Your task to perform on an android device: install app "WhatsApp Messenger" Image 0: 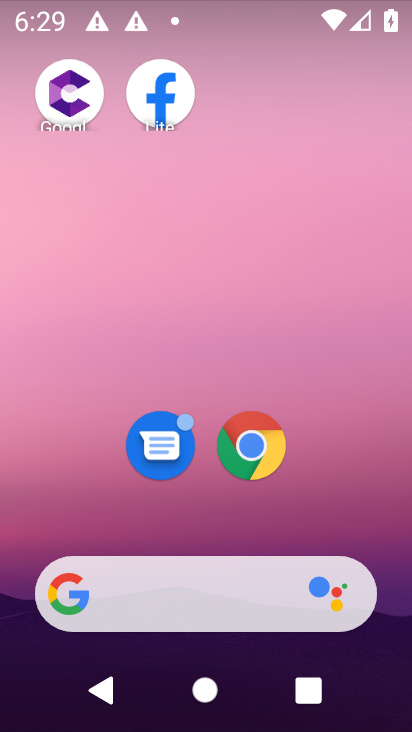
Step 0: drag from (371, 552) to (15, 227)
Your task to perform on an android device: install app "WhatsApp Messenger" Image 1: 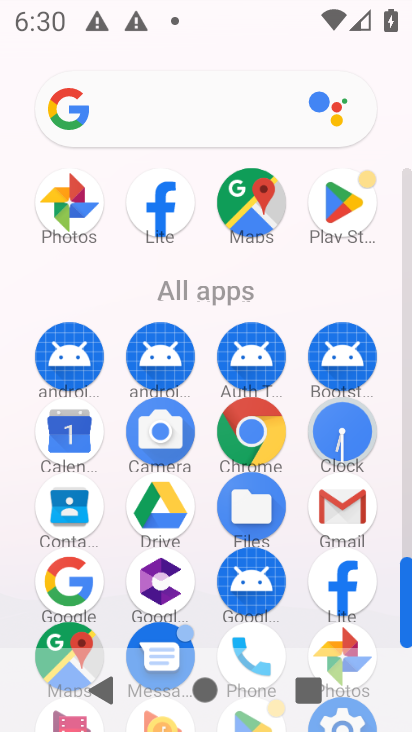
Step 1: click (347, 182)
Your task to perform on an android device: install app "WhatsApp Messenger" Image 2: 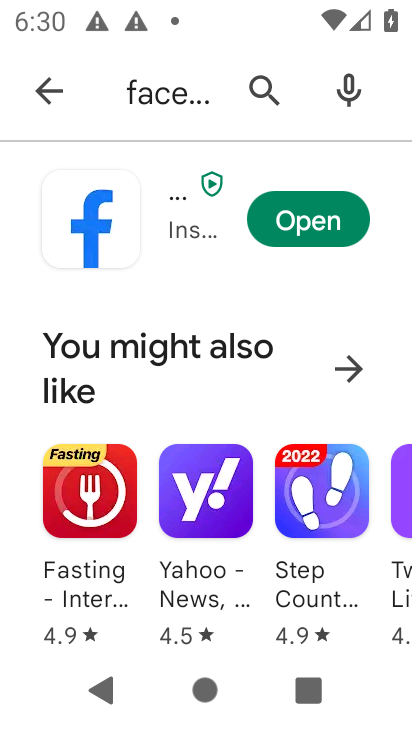
Step 2: press back button
Your task to perform on an android device: install app "WhatsApp Messenger" Image 3: 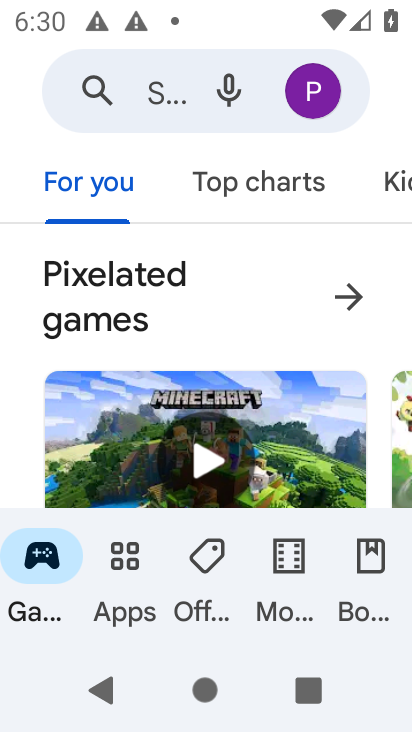
Step 3: click (152, 92)
Your task to perform on an android device: install app "WhatsApp Messenger" Image 4: 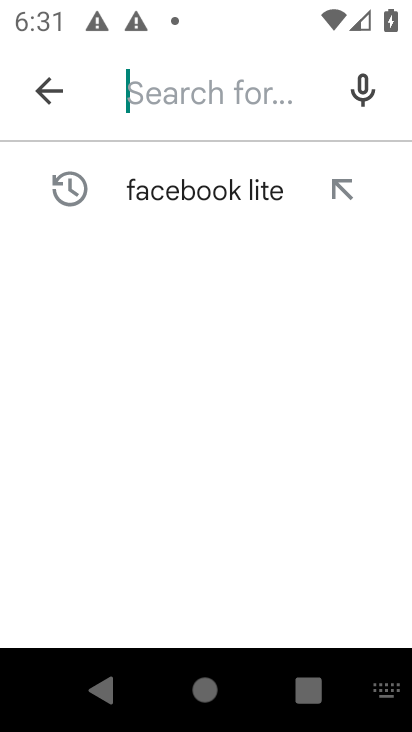
Step 4: type "WhatsApp Messenger"
Your task to perform on an android device: install app "WhatsApp Messenger" Image 5: 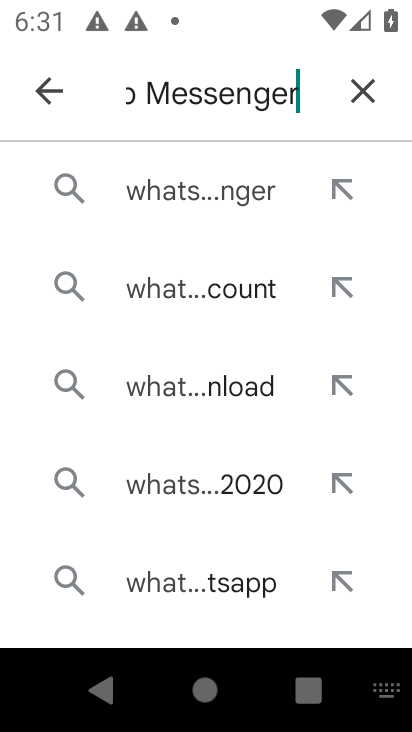
Step 5: click (161, 200)
Your task to perform on an android device: install app "WhatsApp Messenger" Image 6: 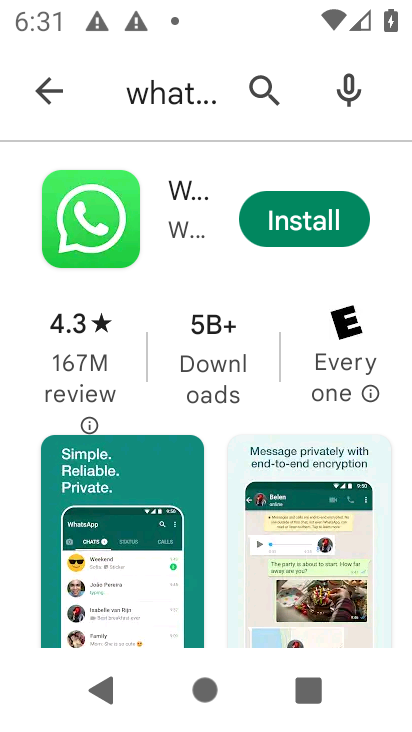
Step 6: click (315, 225)
Your task to perform on an android device: install app "WhatsApp Messenger" Image 7: 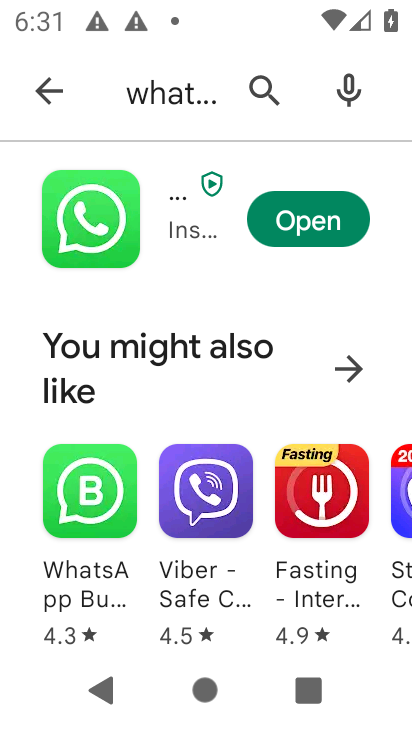
Step 7: task complete